Your task to perform on an android device: turn off airplane mode Image 0: 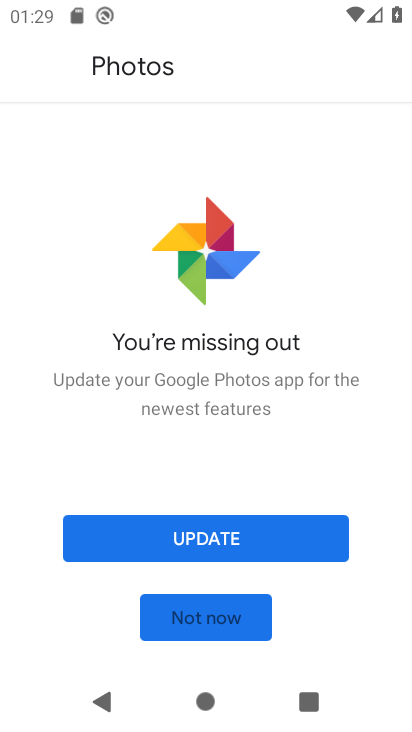
Step 0: press home button
Your task to perform on an android device: turn off airplane mode Image 1: 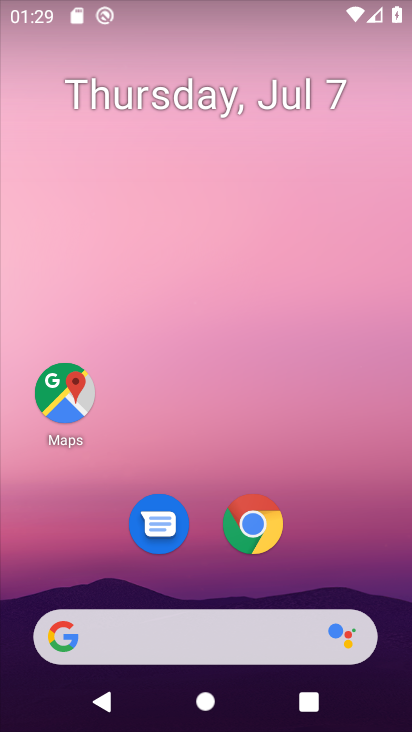
Step 1: drag from (260, 418) to (326, 38)
Your task to perform on an android device: turn off airplane mode Image 2: 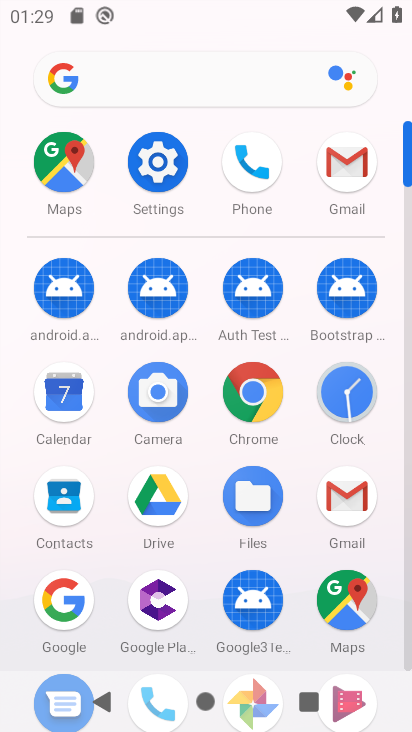
Step 2: click (324, 157)
Your task to perform on an android device: turn off airplane mode Image 3: 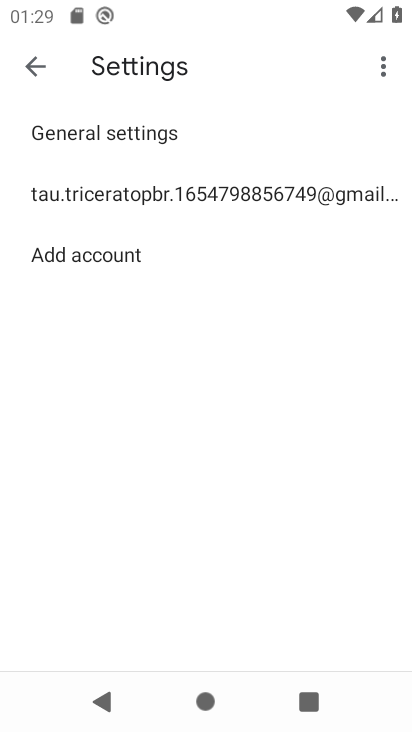
Step 3: press home button
Your task to perform on an android device: turn off airplane mode Image 4: 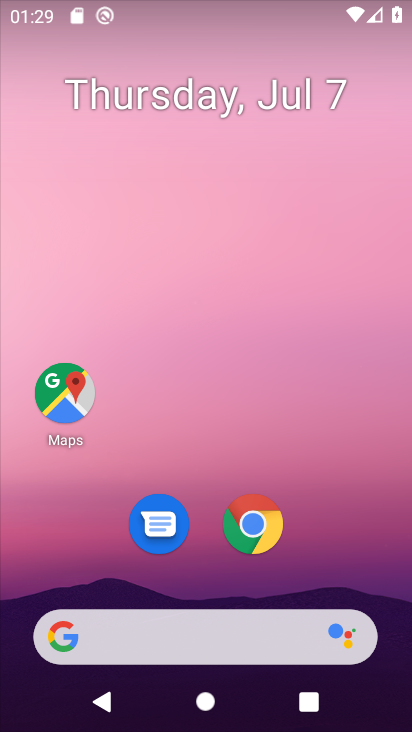
Step 4: drag from (244, 439) to (291, 26)
Your task to perform on an android device: turn off airplane mode Image 5: 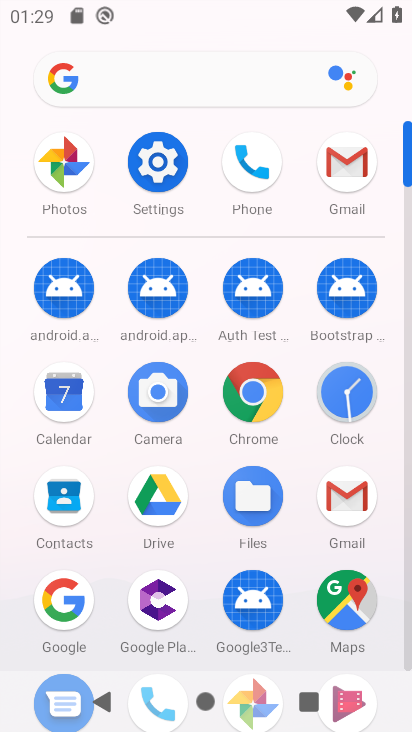
Step 5: click (160, 160)
Your task to perform on an android device: turn off airplane mode Image 6: 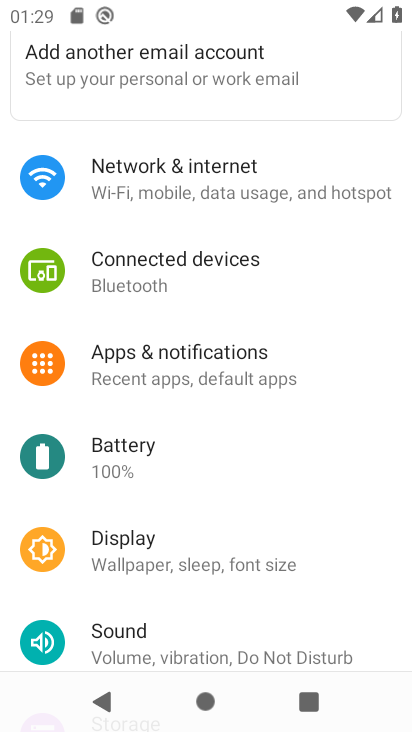
Step 6: click (172, 179)
Your task to perform on an android device: turn off airplane mode Image 7: 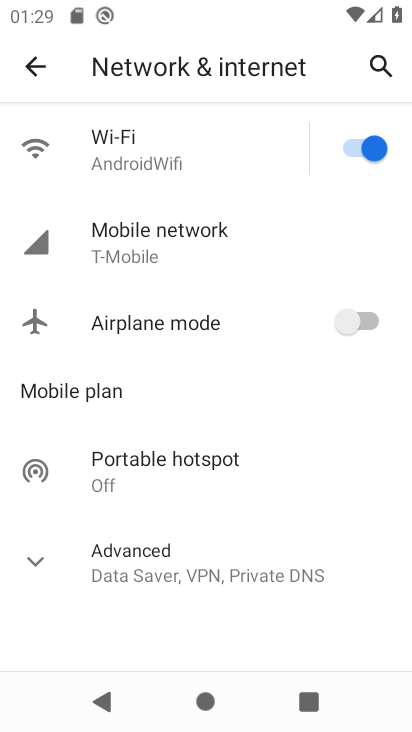
Step 7: task complete